Your task to perform on an android device: turn off improve location accuracy Image 0: 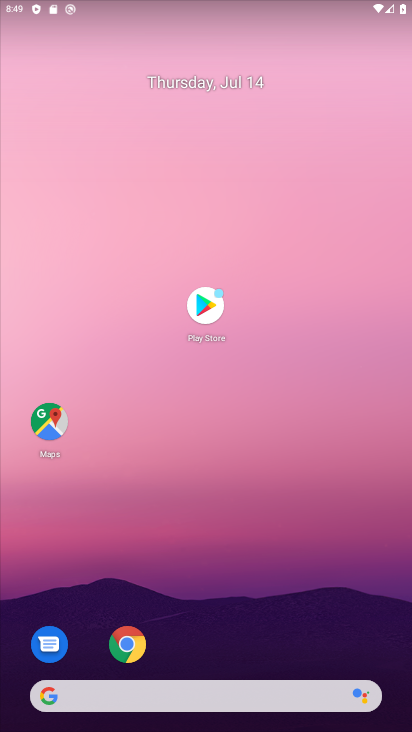
Step 0: drag from (197, 617) to (186, 107)
Your task to perform on an android device: turn off improve location accuracy Image 1: 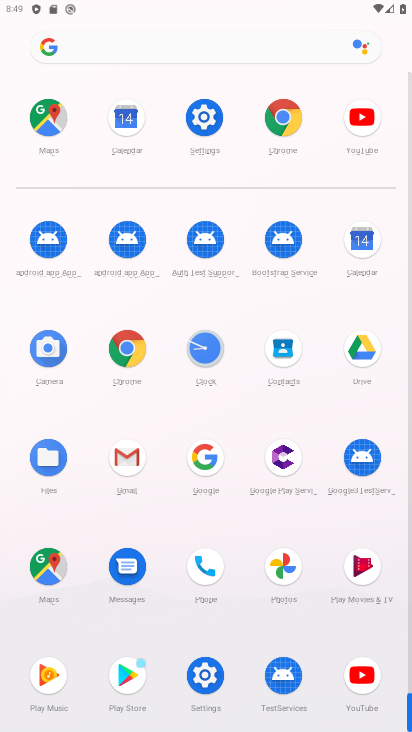
Step 1: click (202, 680)
Your task to perform on an android device: turn off improve location accuracy Image 2: 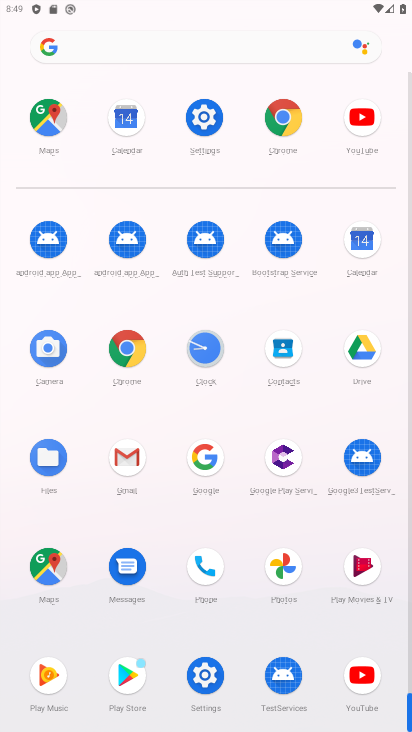
Step 2: click (202, 680)
Your task to perform on an android device: turn off improve location accuracy Image 3: 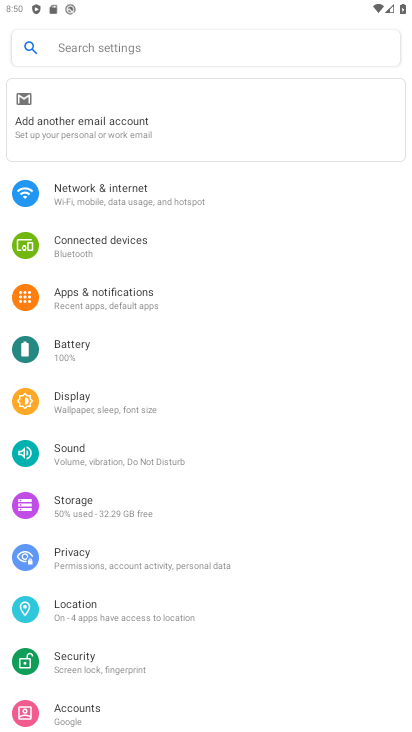
Step 3: click (113, 611)
Your task to perform on an android device: turn off improve location accuracy Image 4: 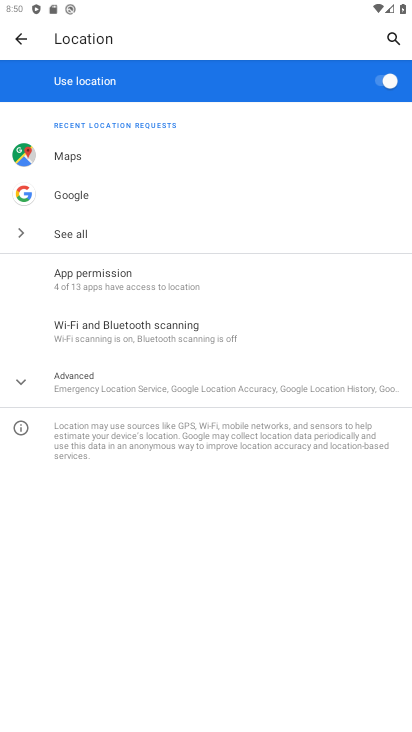
Step 4: click (94, 382)
Your task to perform on an android device: turn off improve location accuracy Image 5: 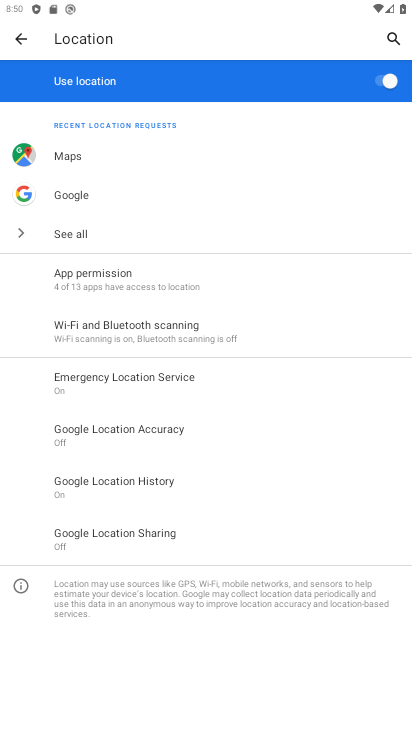
Step 5: click (188, 438)
Your task to perform on an android device: turn off improve location accuracy Image 6: 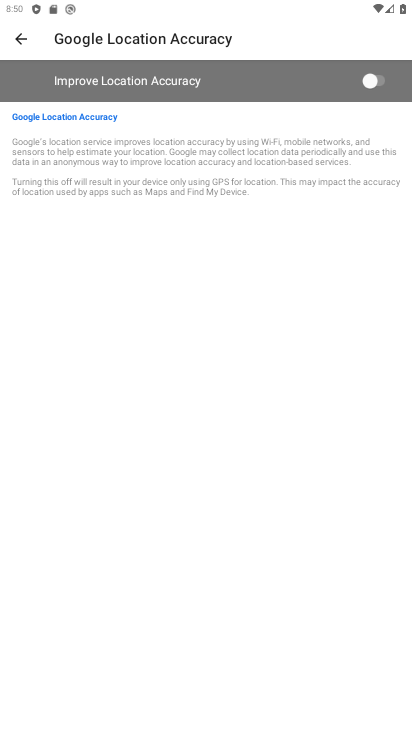
Step 6: task complete